Your task to perform on an android device: Open maps Image 0: 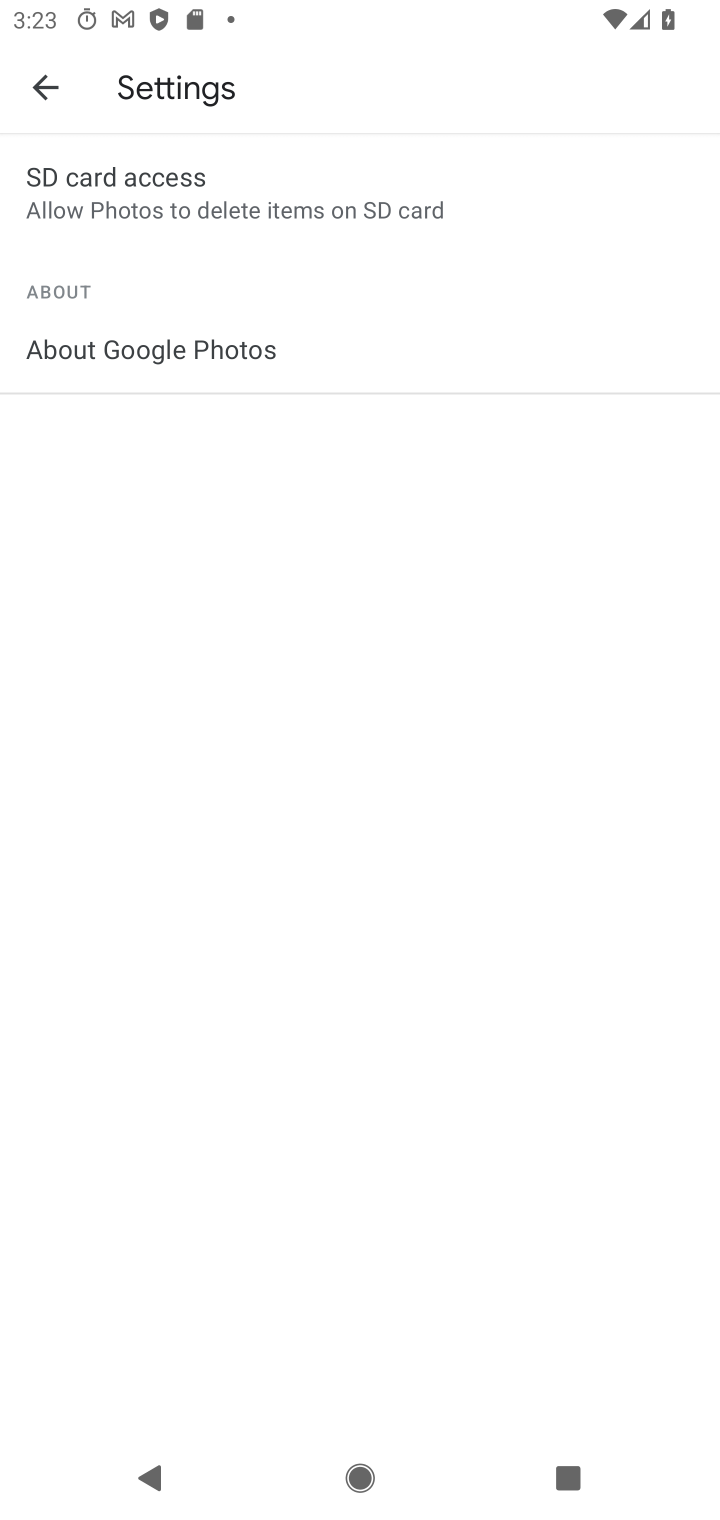
Step 0: press home button
Your task to perform on an android device: Open maps Image 1: 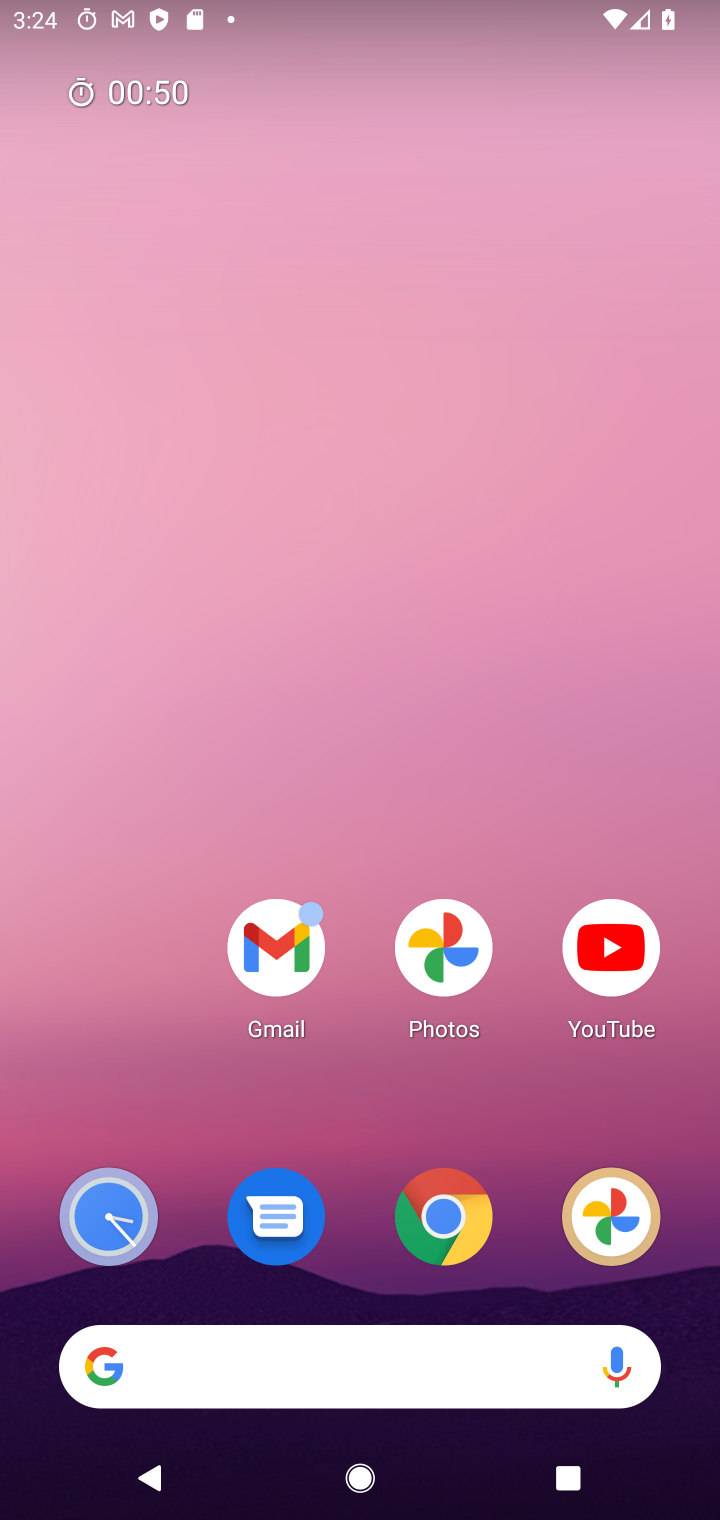
Step 1: drag from (101, 1159) to (476, 291)
Your task to perform on an android device: Open maps Image 2: 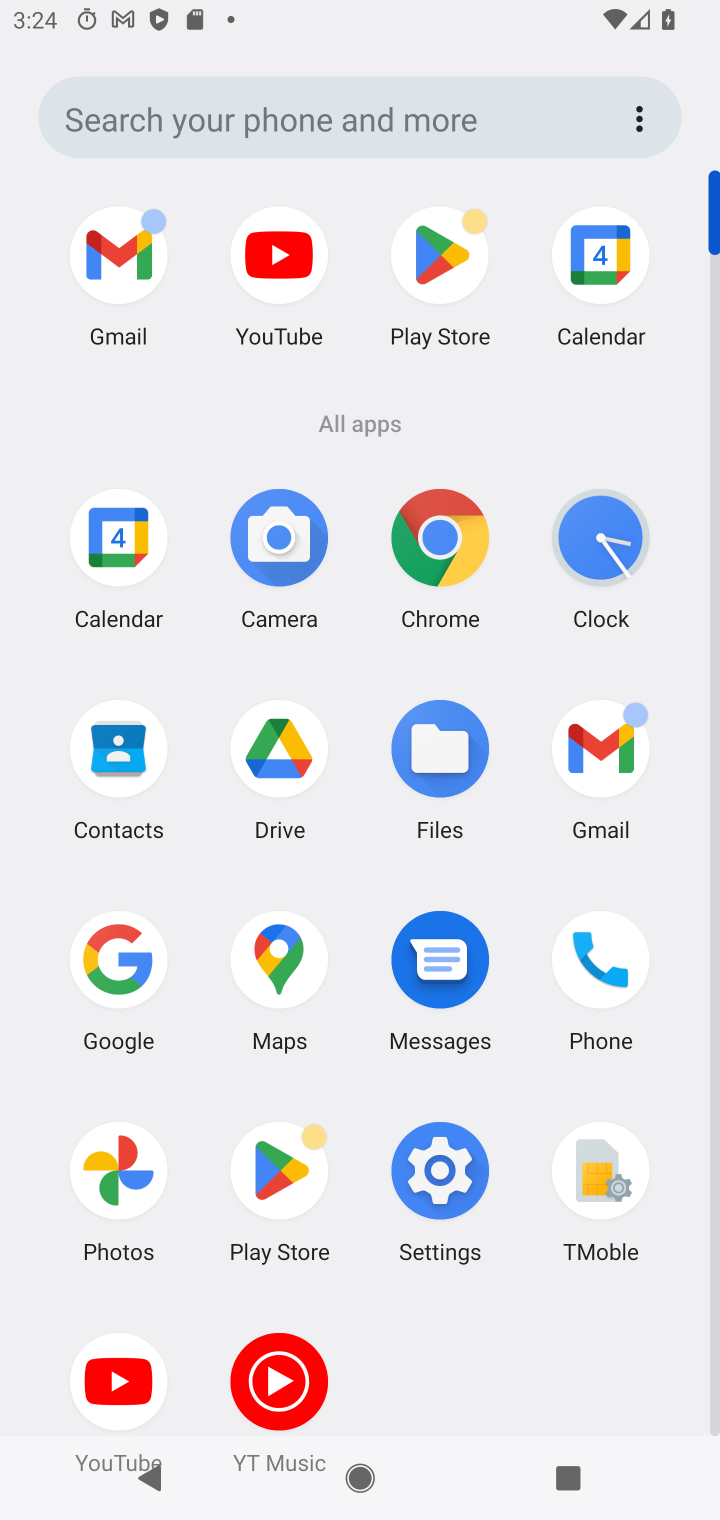
Step 2: click (256, 982)
Your task to perform on an android device: Open maps Image 3: 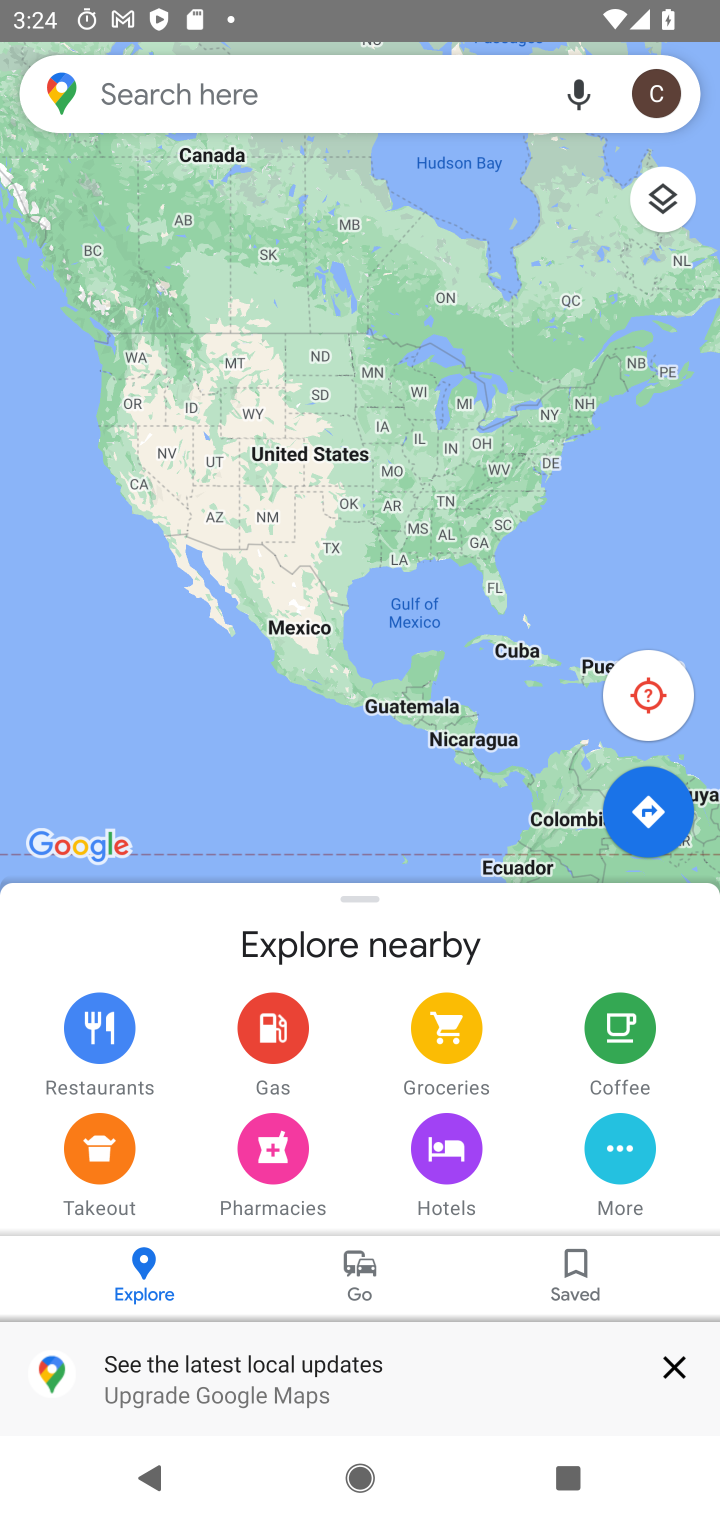
Step 3: task complete